Your task to perform on an android device: toggle notifications settings in the gmail app Image 0: 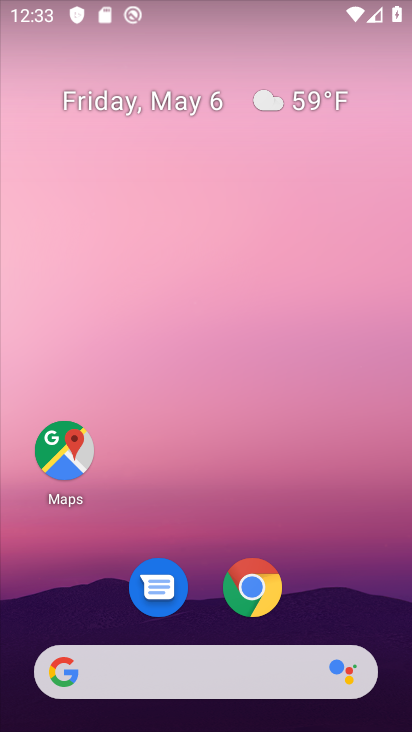
Step 0: drag from (241, 657) to (229, 183)
Your task to perform on an android device: toggle notifications settings in the gmail app Image 1: 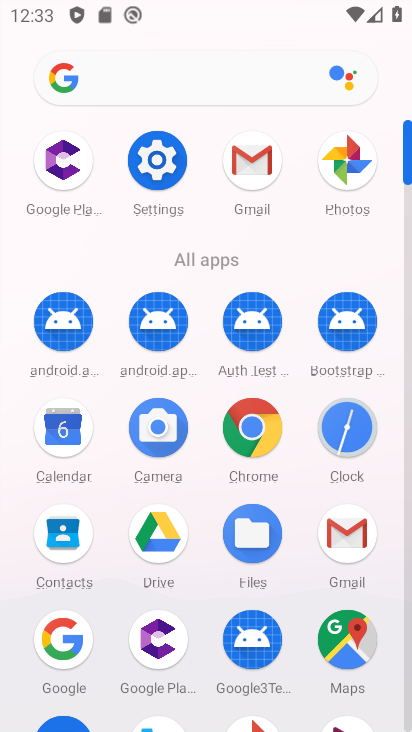
Step 1: click (339, 543)
Your task to perform on an android device: toggle notifications settings in the gmail app Image 2: 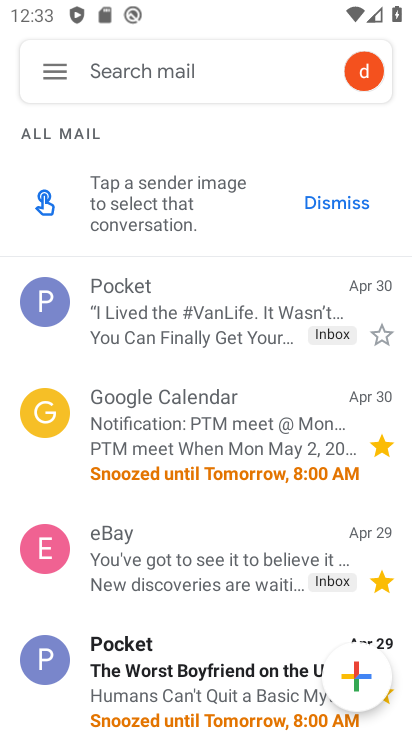
Step 2: click (53, 75)
Your task to perform on an android device: toggle notifications settings in the gmail app Image 3: 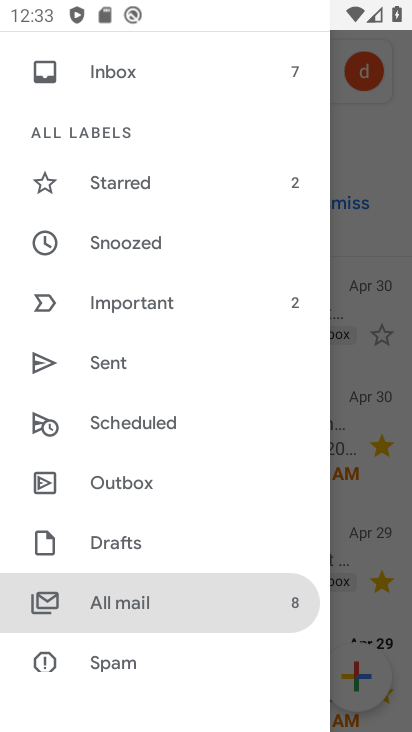
Step 3: drag from (117, 492) to (143, 64)
Your task to perform on an android device: toggle notifications settings in the gmail app Image 4: 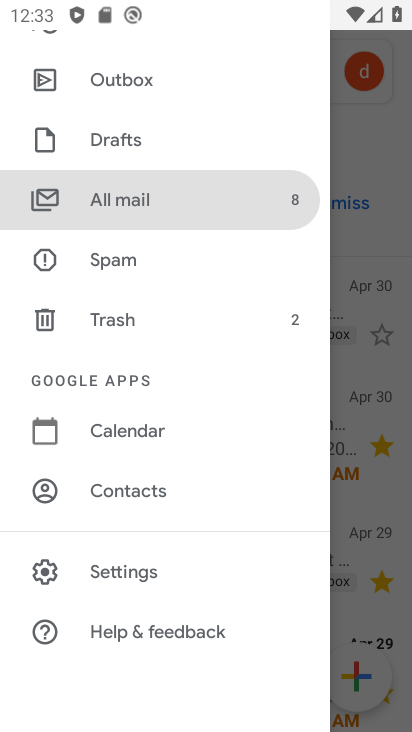
Step 4: click (155, 571)
Your task to perform on an android device: toggle notifications settings in the gmail app Image 5: 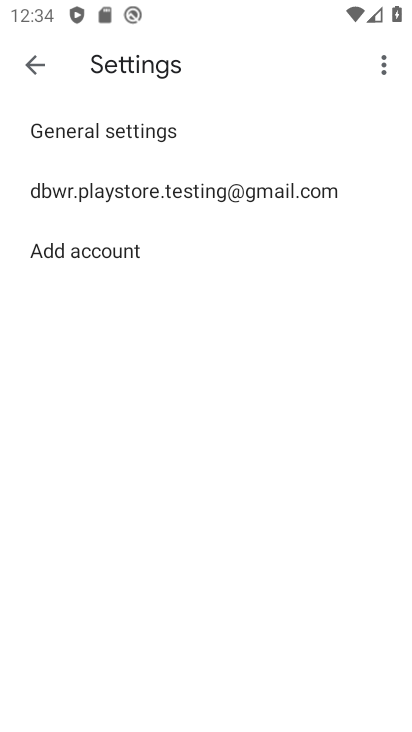
Step 5: click (78, 145)
Your task to perform on an android device: toggle notifications settings in the gmail app Image 6: 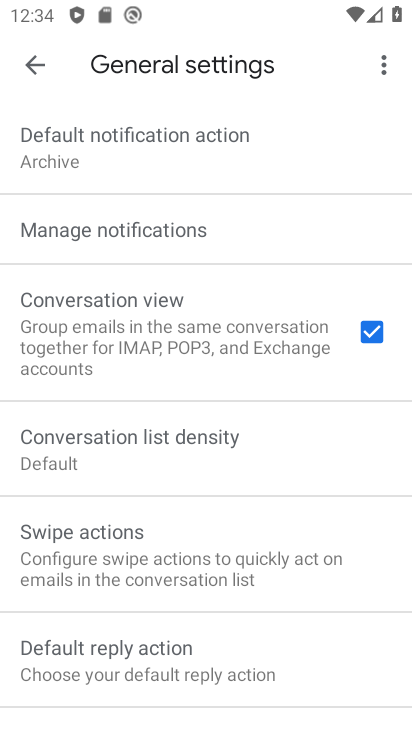
Step 6: click (110, 252)
Your task to perform on an android device: toggle notifications settings in the gmail app Image 7: 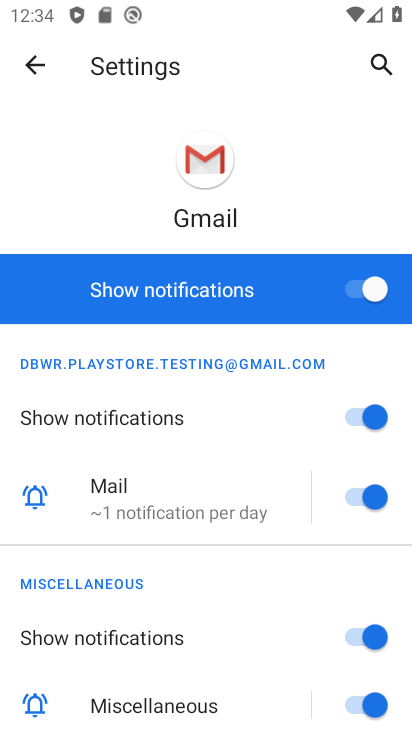
Step 7: click (345, 297)
Your task to perform on an android device: toggle notifications settings in the gmail app Image 8: 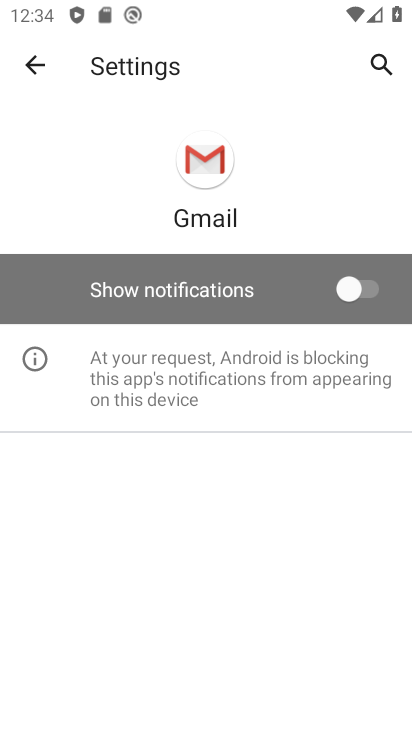
Step 8: task complete